Your task to perform on an android device: turn off smart reply in the gmail app Image 0: 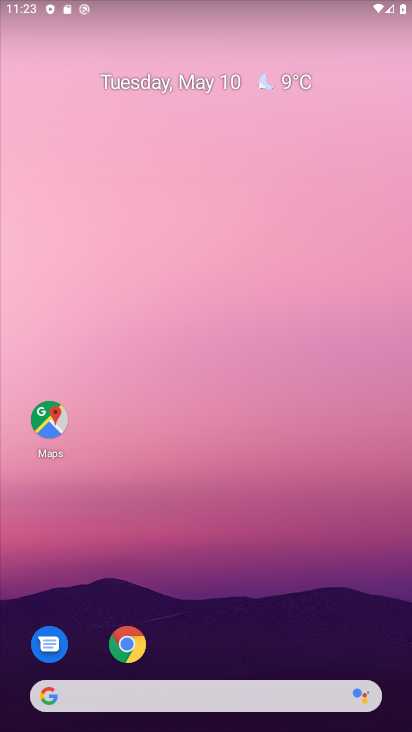
Step 0: drag from (218, 662) to (285, 237)
Your task to perform on an android device: turn off smart reply in the gmail app Image 1: 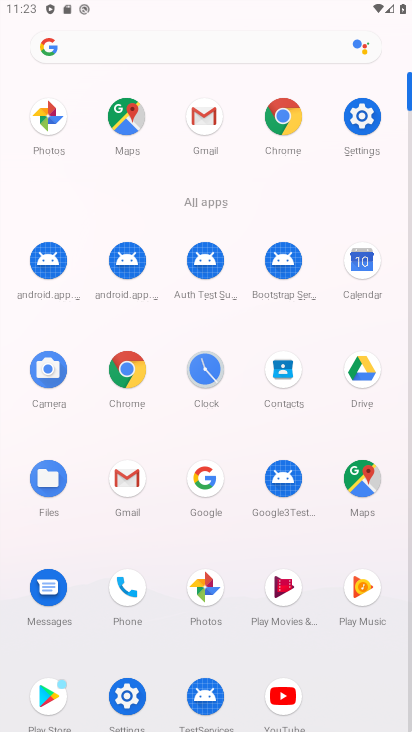
Step 1: click (129, 487)
Your task to perform on an android device: turn off smart reply in the gmail app Image 2: 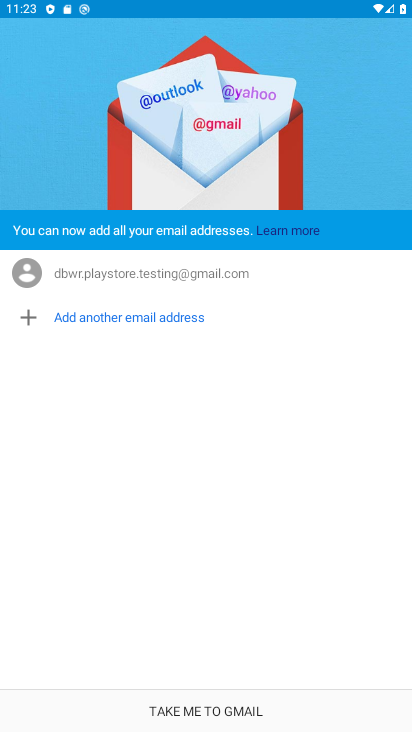
Step 2: click (212, 716)
Your task to perform on an android device: turn off smart reply in the gmail app Image 3: 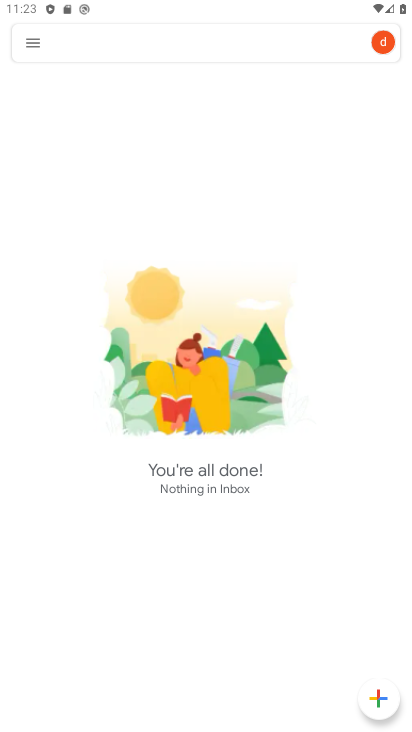
Step 3: click (33, 41)
Your task to perform on an android device: turn off smart reply in the gmail app Image 4: 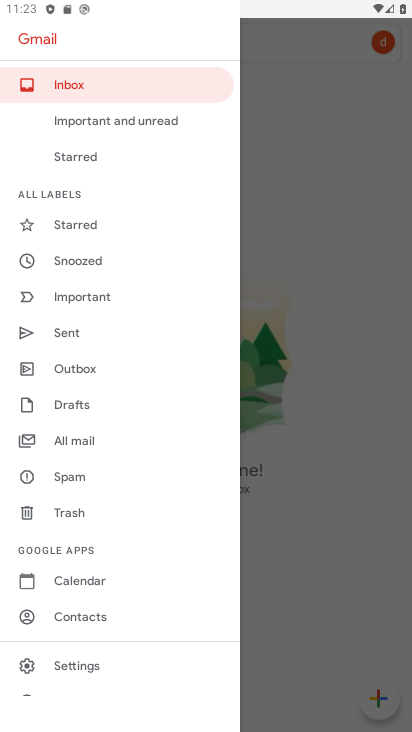
Step 4: click (77, 663)
Your task to perform on an android device: turn off smart reply in the gmail app Image 5: 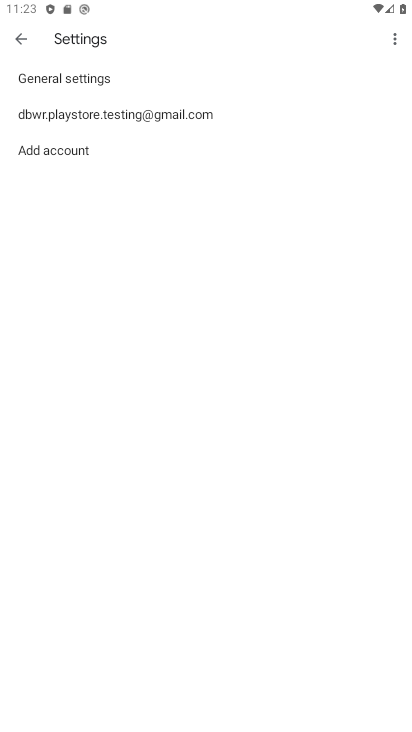
Step 5: click (154, 123)
Your task to perform on an android device: turn off smart reply in the gmail app Image 6: 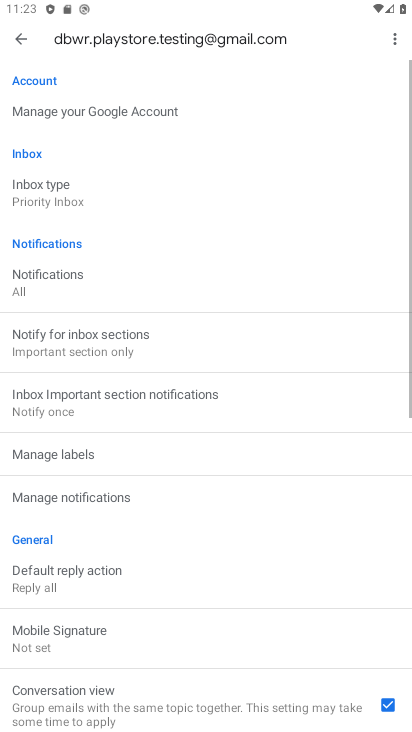
Step 6: drag from (115, 603) to (183, 314)
Your task to perform on an android device: turn off smart reply in the gmail app Image 7: 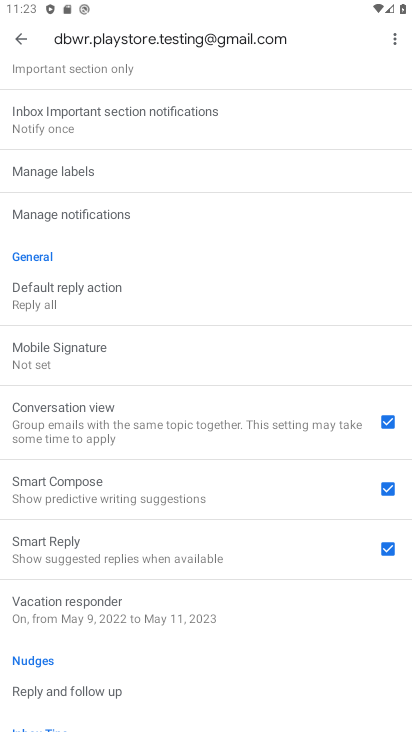
Step 7: click (194, 555)
Your task to perform on an android device: turn off smart reply in the gmail app Image 8: 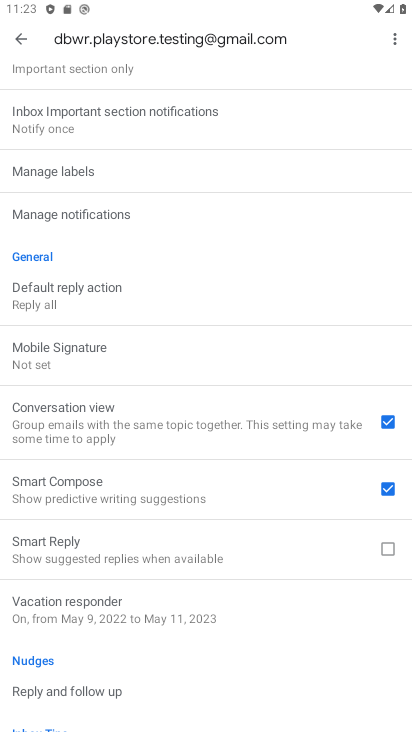
Step 8: task complete